Your task to perform on an android device: Go to notification settings Image 0: 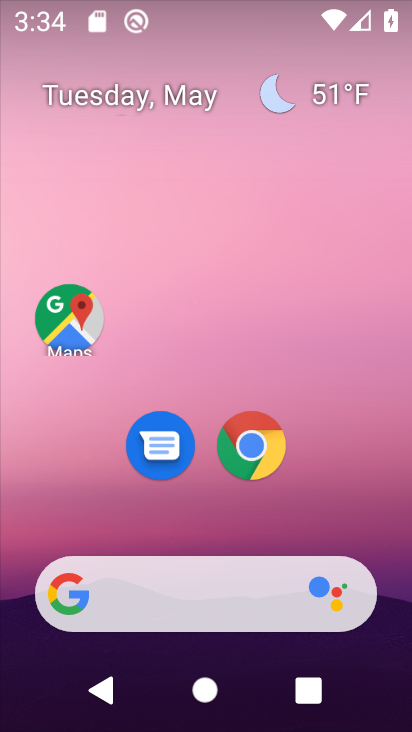
Step 0: drag from (127, 566) to (228, 41)
Your task to perform on an android device: Go to notification settings Image 1: 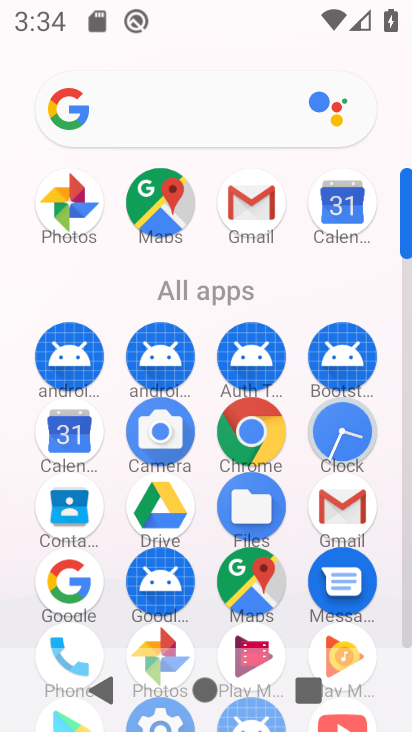
Step 1: drag from (139, 522) to (224, 208)
Your task to perform on an android device: Go to notification settings Image 2: 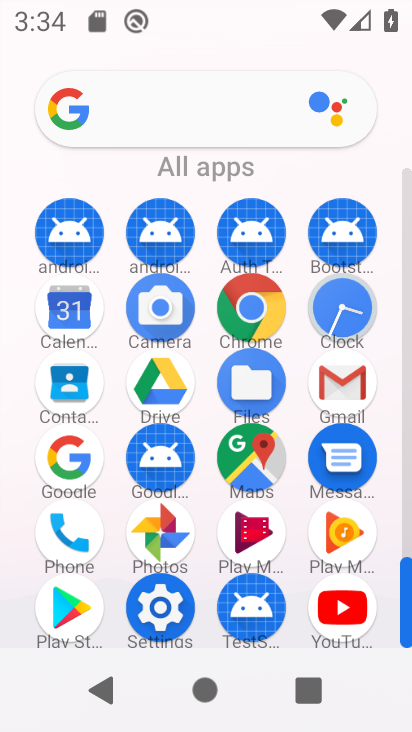
Step 2: click (138, 612)
Your task to perform on an android device: Go to notification settings Image 3: 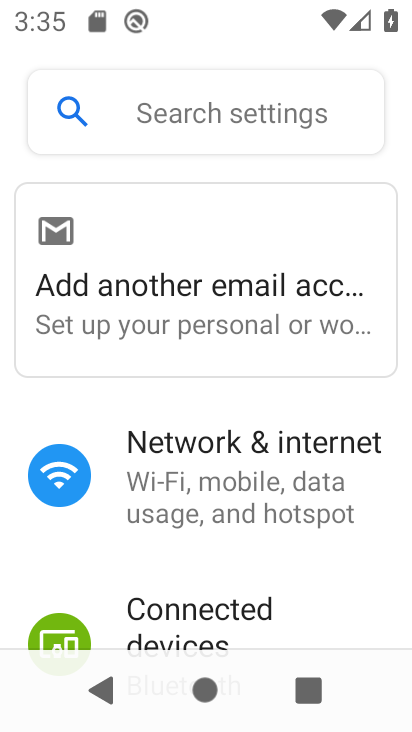
Step 3: drag from (214, 560) to (305, 180)
Your task to perform on an android device: Go to notification settings Image 4: 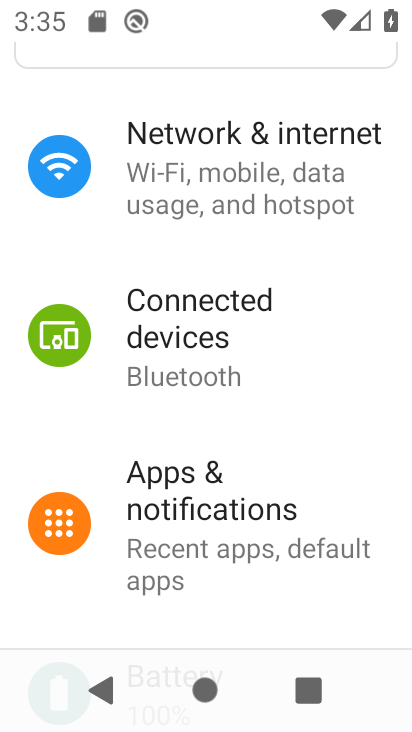
Step 4: drag from (168, 528) to (215, 305)
Your task to perform on an android device: Go to notification settings Image 5: 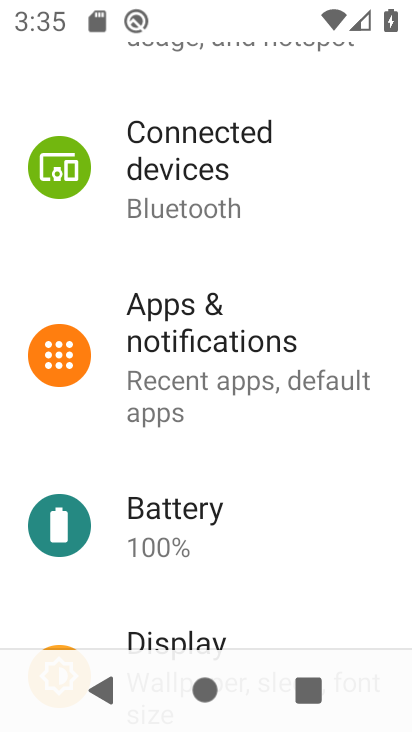
Step 5: click (201, 333)
Your task to perform on an android device: Go to notification settings Image 6: 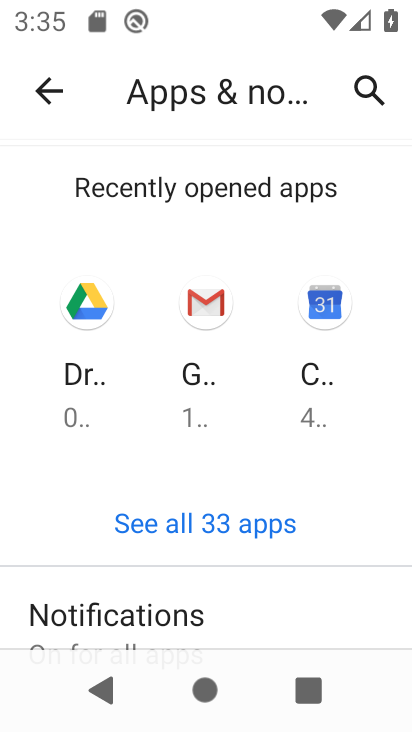
Step 6: drag from (171, 525) to (254, 258)
Your task to perform on an android device: Go to notification settings Image 7: 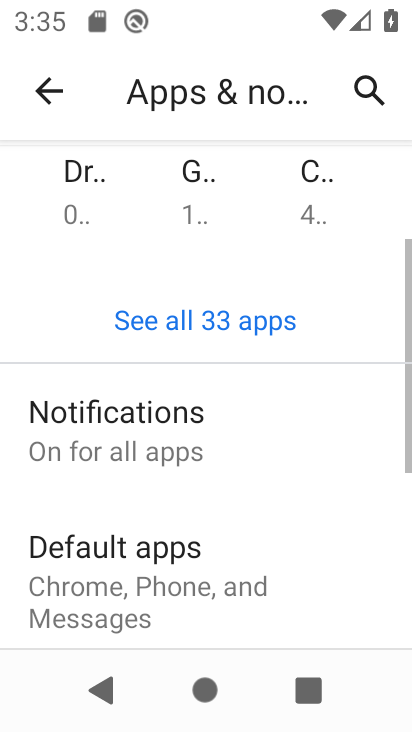
Step 7: click (223, 430)
Your task to perform on an android device: Go to notification settings Image 8: 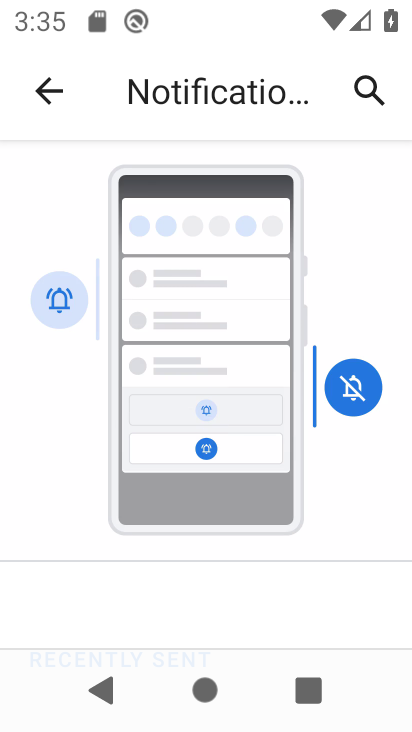
Step 8: task complete